Your task to perform on an android device: Open a new Chrome incognito window Image 0: 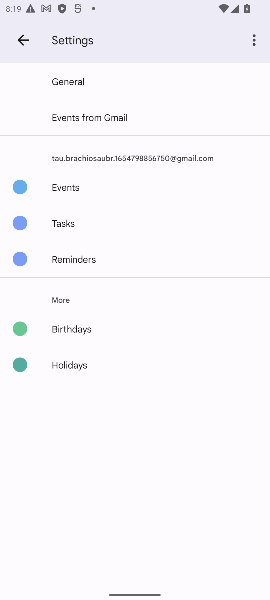
Step 0: press home button
Your task to perform on an android device: Open a new Chrome incognito window Image 1: 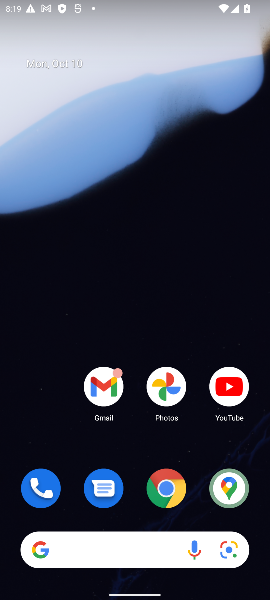
Step 1: click (167, 490)
Your task to perform on an android device: Open a new Chrome incognito window Image 2: 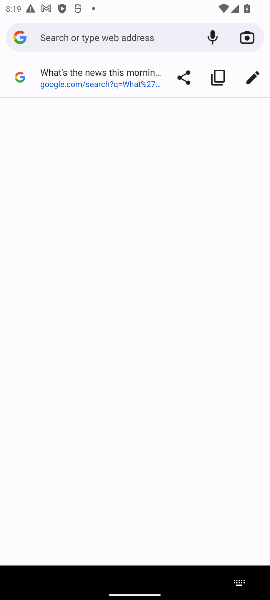
Step 2: press home button
Your task to perform on an android device: Open a new Chrome incognito window Image 3: 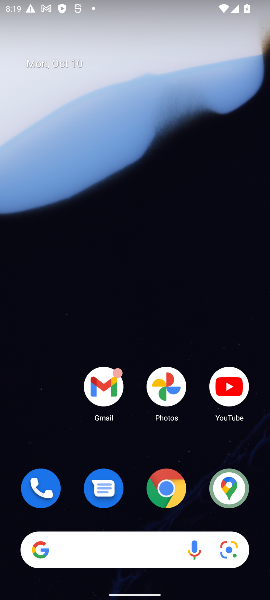
Step 3: click (166, 486)
Your task to perform on an android device: Open a new Chrome incognito window Image 4: 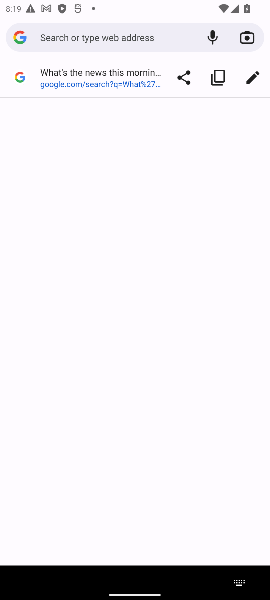
Step 4: task complete